Your task to perform on an android device: toggle airplane mode Image 0: 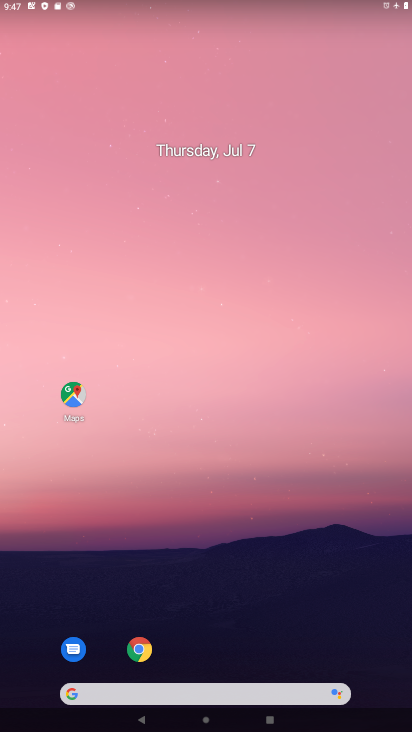
Step 0: drag from (232, 723) to (232, 133)
Your task to perform on an android device: toggle airplane mode Image 1: 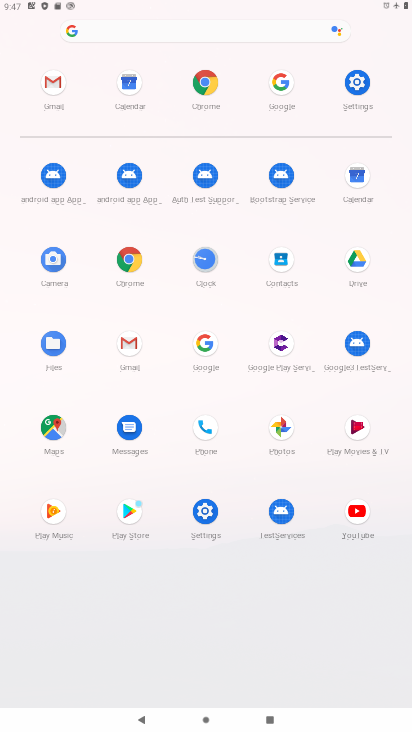
Step 1: click (365, 78)
Your task to perform on an android device: toggle airplane mode Image 2: 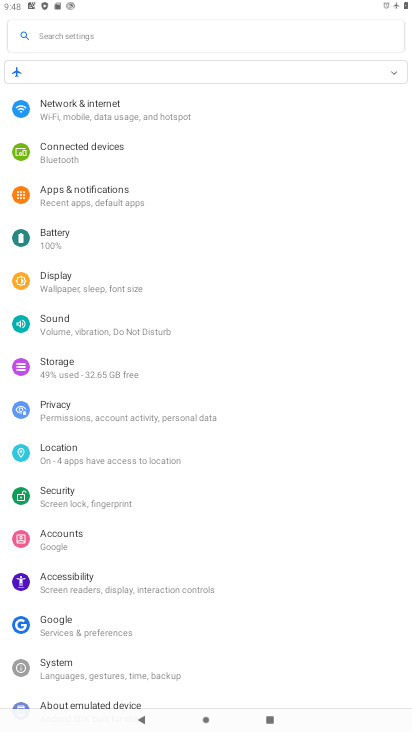
Step 2: click (100, 106)
Your task to perform on an android device: toggle airplane mode Image 3: 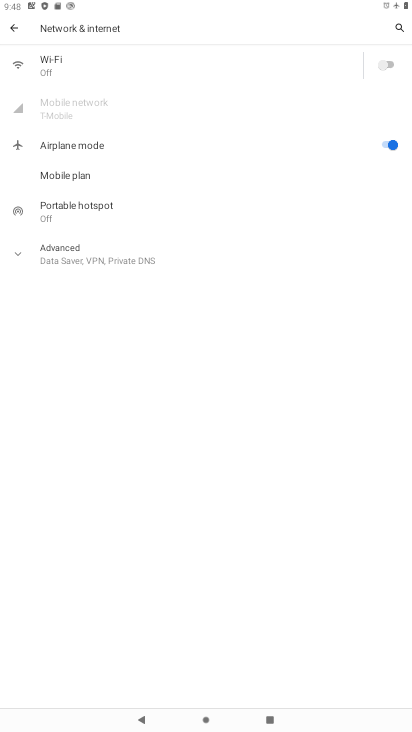
Step 3: click (385, 142)
Your task to perform on an android device: toggle airplane mode Image 4: 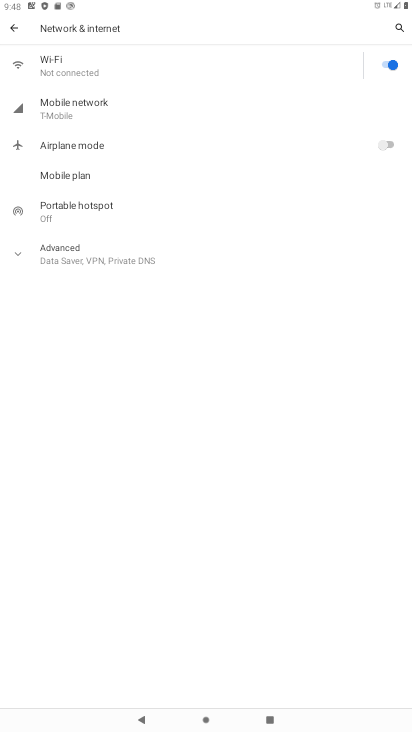
Step 4: task complete